Your task to perform on an android device: Open Youtube and go to "Your channel" Image 0: 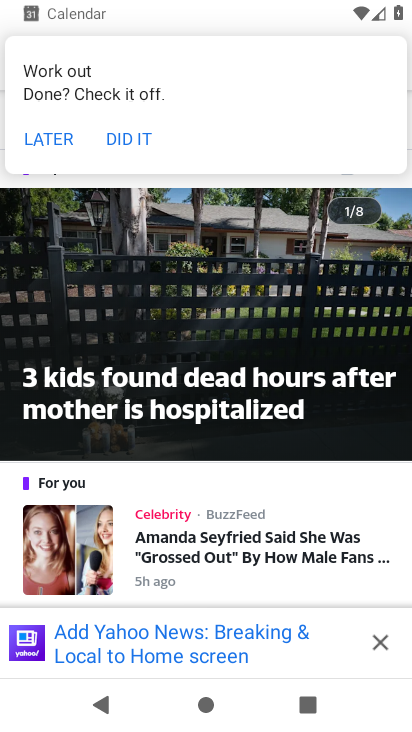
Step 0: press home button
Your task to perform on an android device: Open Youtube and go to "Your channel" Image 1: 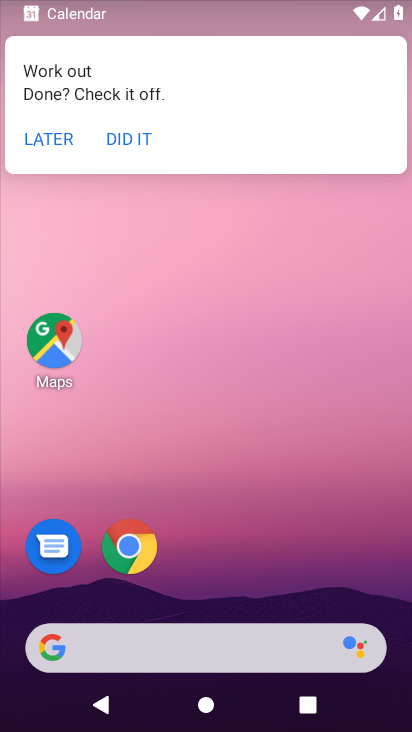
Step 1: drag from (239, 550) to (239, 153)
Your task to perform on an android device: Open Youtube and go to "Your channel" Image 2: 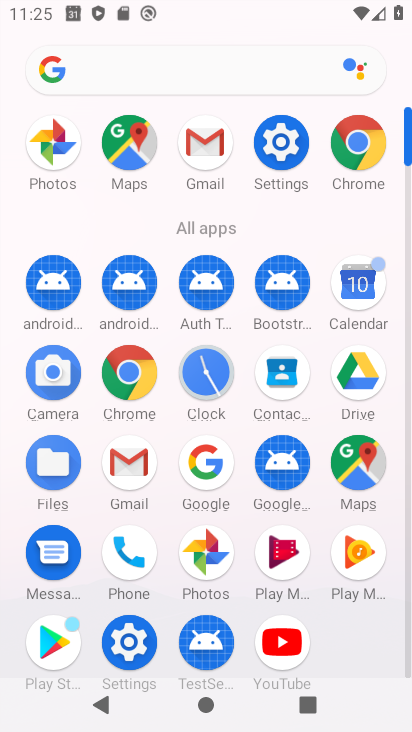
Step 2: click (276, 638)
Your task to perform on an android device: Open Youtube and go to "Your channel" Image 3: 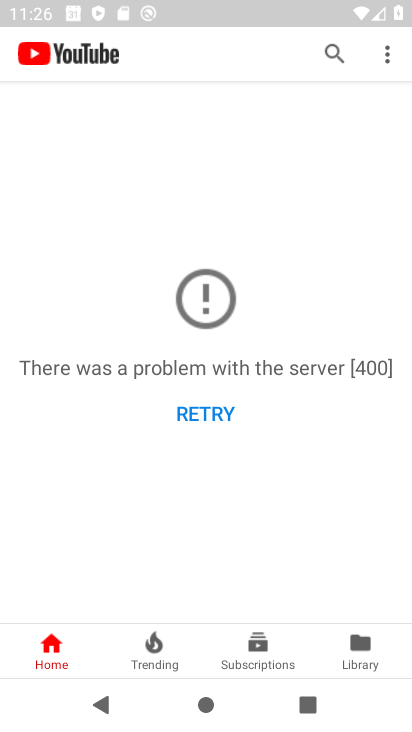
Step 3: click (388, 61)
Your task to perform on an android device: Open Youtube and go to "Your channel" Image 4: 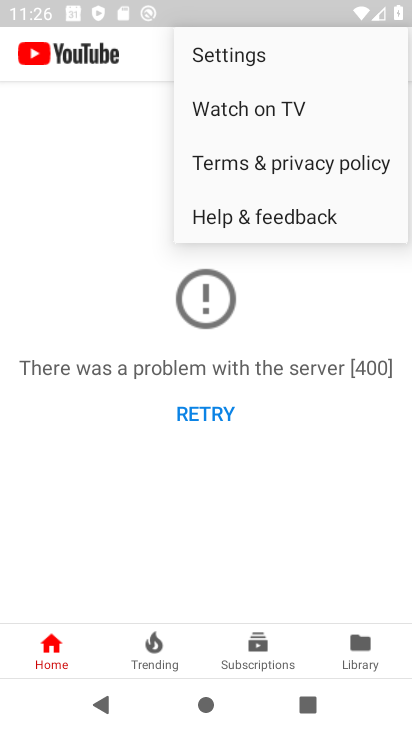
Step 4: click (351, 666)
Your task to perform on an android device: Open Youtube and go to "Your channel" Image 5: 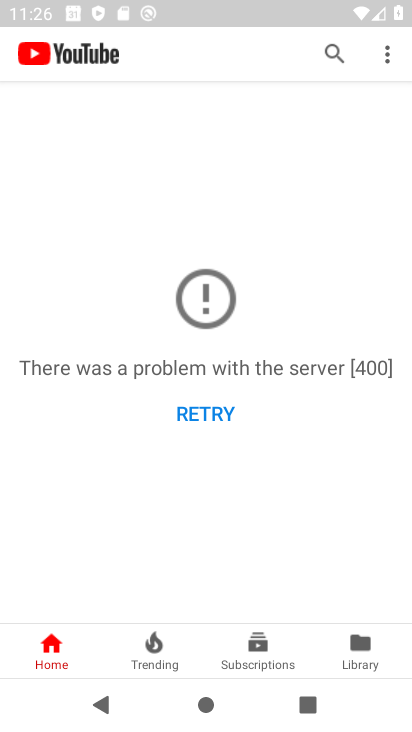
Step 5: click (339, 646)
Your task to perform on an android device: Open Youtube and go to "Your channel" Image 6: 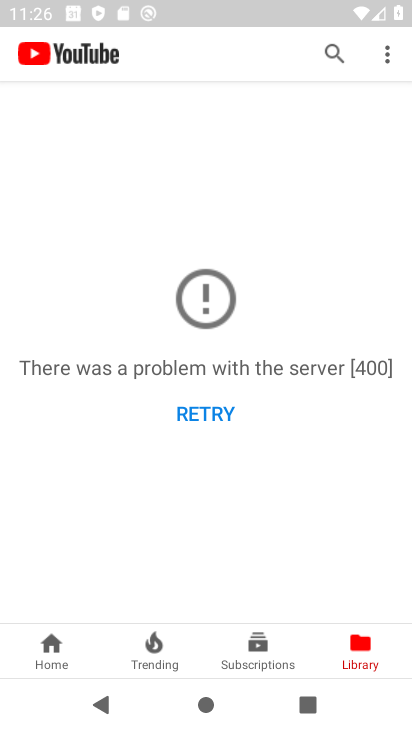
Step 6: click (61, 631)
Your task to perform on an android device: Open Youtube and go to "Your channel" Image 7: 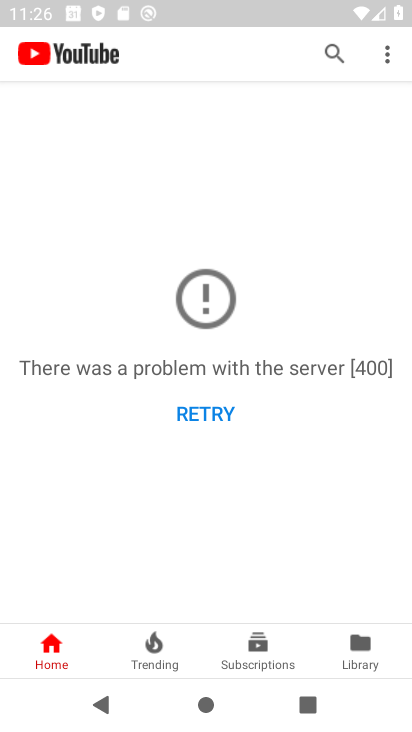
Step 7: click (386, 52)
Your task to perform on an android device: Open Youtube and go to "Your channel" Image 8: 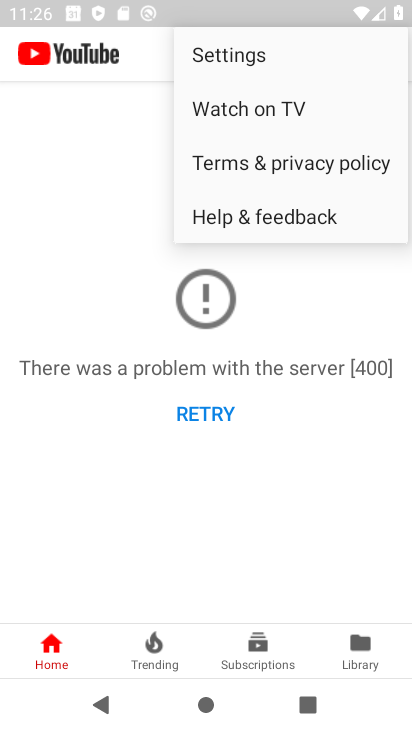
Step 8: click (116, 485)
Your task to perform on an android device: Open Youtube and go to "Your channel" Image 9: 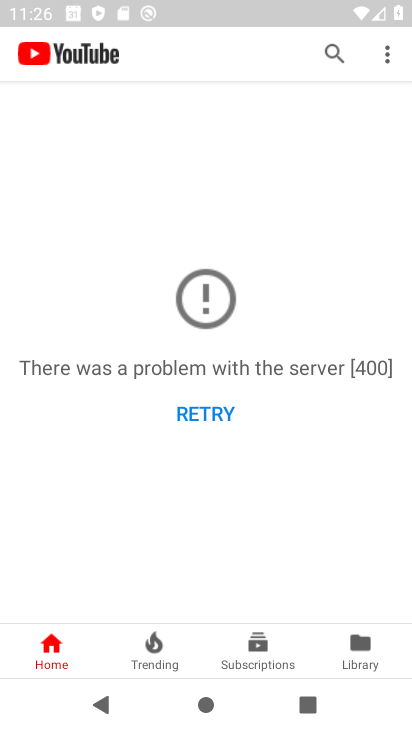
Step 9: click (194, 420)
Your task to perform on an android device: Open Youtube and go to "Your channel" Image 10: 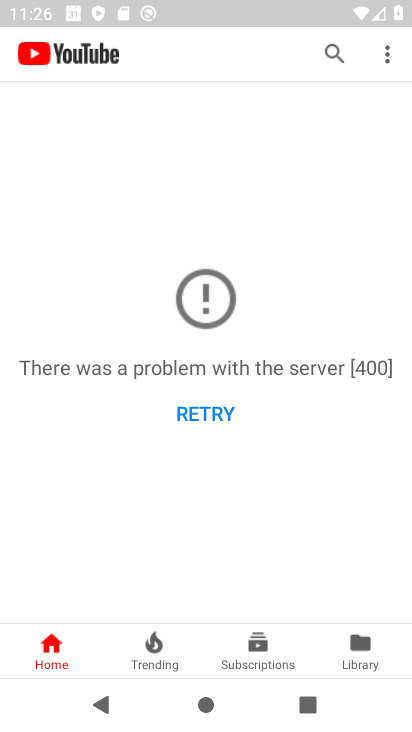
Step 10: task complete